Your task to perform on an android device: Go to network settings Image 0: 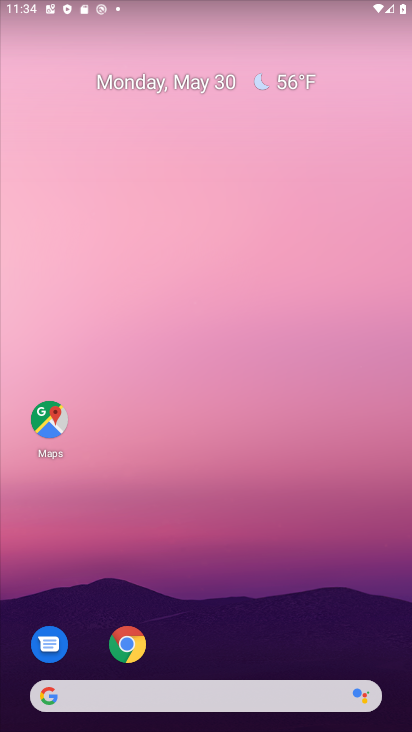
Step 0: drag from (244, 663) to (305, 84)
Your task to perform on an android device: Go to network settings Image 1: 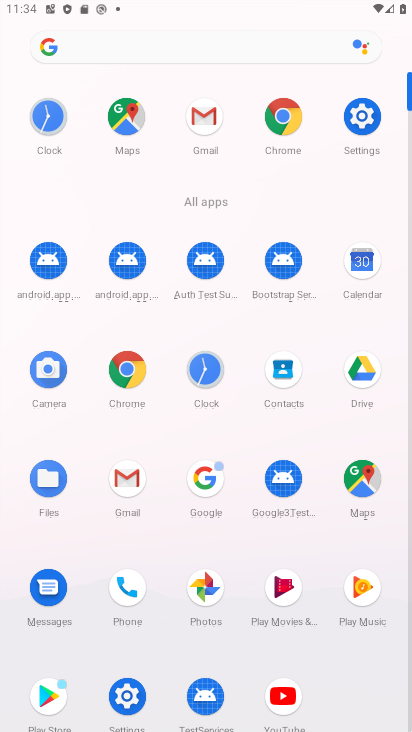
Step 1: click (354, 133)
Your task to perform on an android device: Go to network settings Image 2: 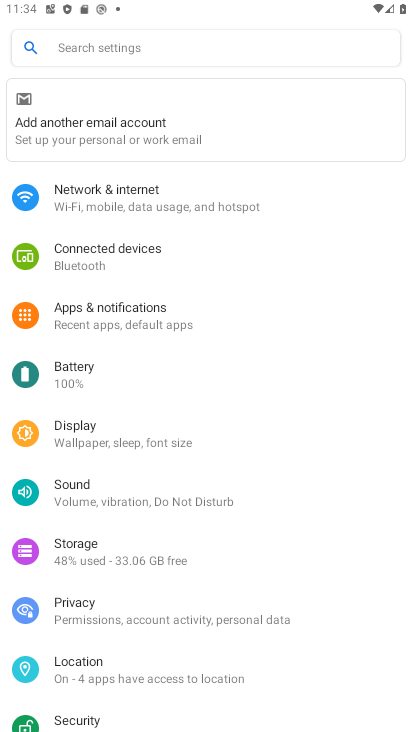
Step 2: click (187, 222)
Your task to perform on an android device: Go to network settings Image 3: 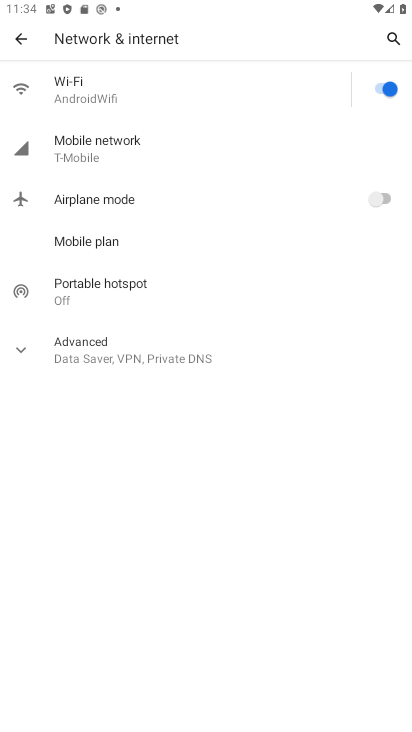
Step 3: task complete